Your task to perform on an android device: Open Google Image 0: 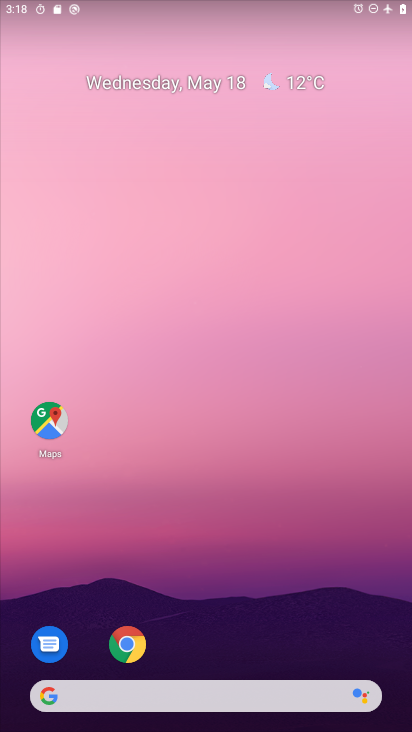
Step 0: drag from (398, 687) to (286, 56)
Your task to perform on an android device: Open Google Image 1: 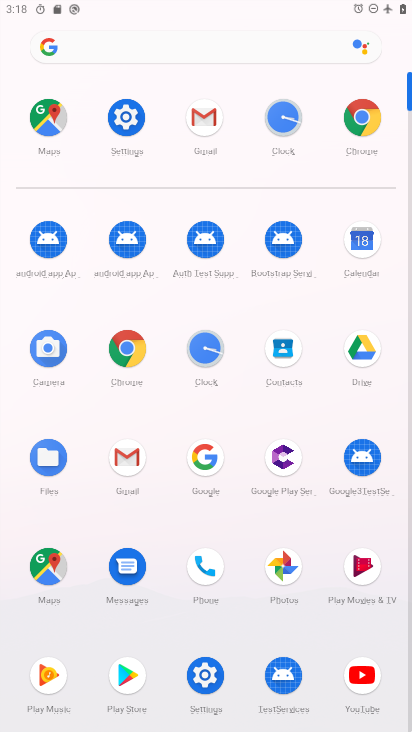
Step 1: click (208, 466)
Your task to perform on an android device: Open Google Image 2: 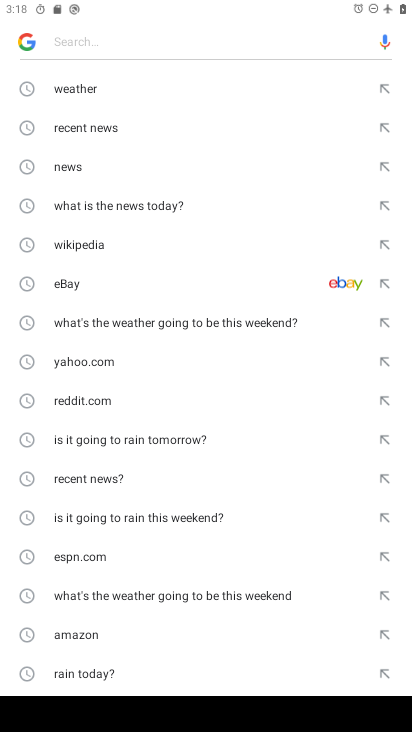
Step 2: click (97, 41)
Your task to perform on an android device: Open Google Image 3: 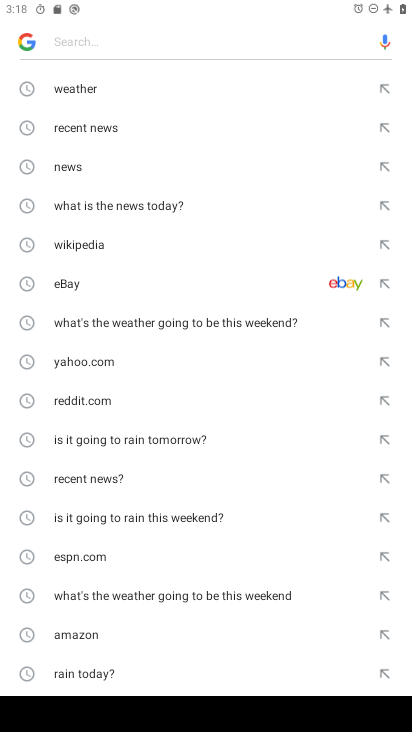
Step 3: press back button
Your task to perform on an android device: Open Google Image 4: 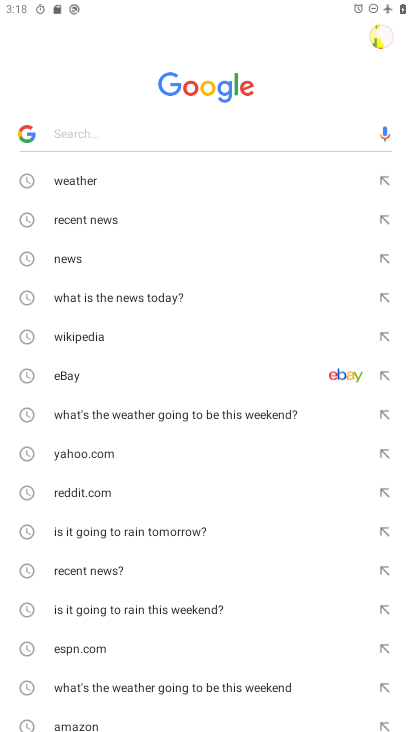
Step 4: press back button
Your task to perform on an android device: Open Google Image 5: 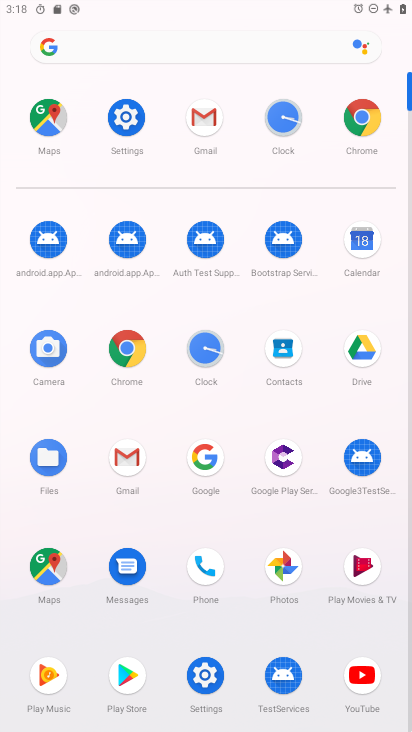
Step 5: click (211, 461)
Your task to perform on an android device: Open Google Image 6: 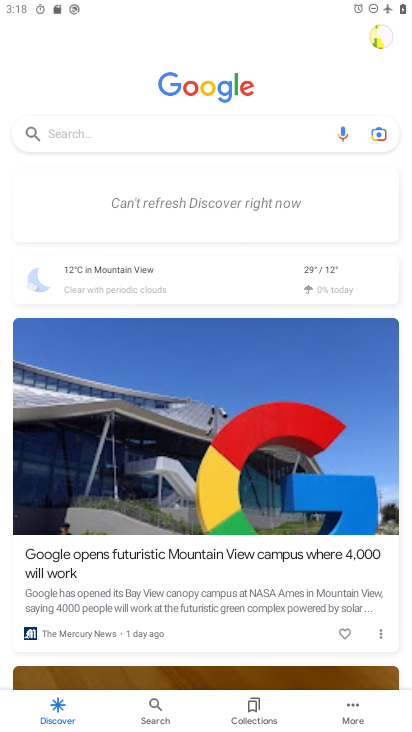
Step 6: task complete